Your task to perform on an android device: turn on translation in the chrome app Image 0: 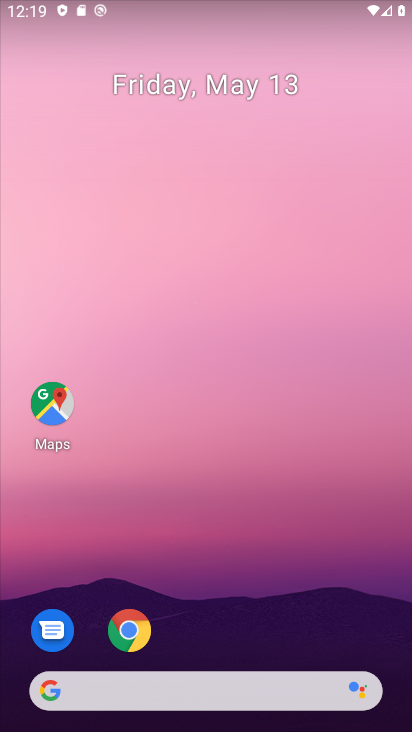
Step 0: drag from (258, 715) to (351, 238)
Your task to perform on an android device: turn on translation in the chrome app Image 1: 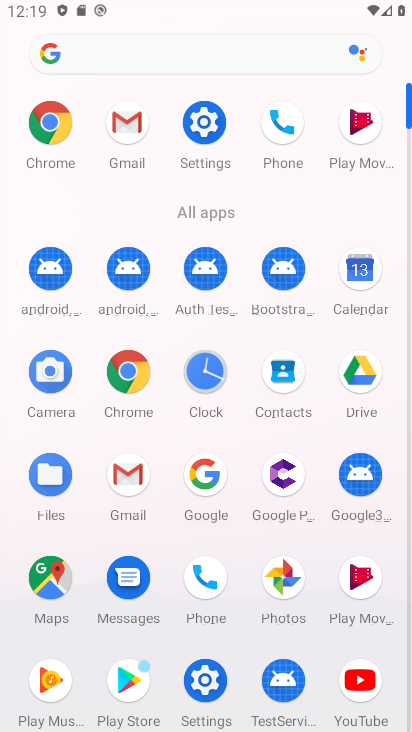
Step 1: click (125, 353)
Your task to perform on an android device: turn on translation in the chrome app Image 2: 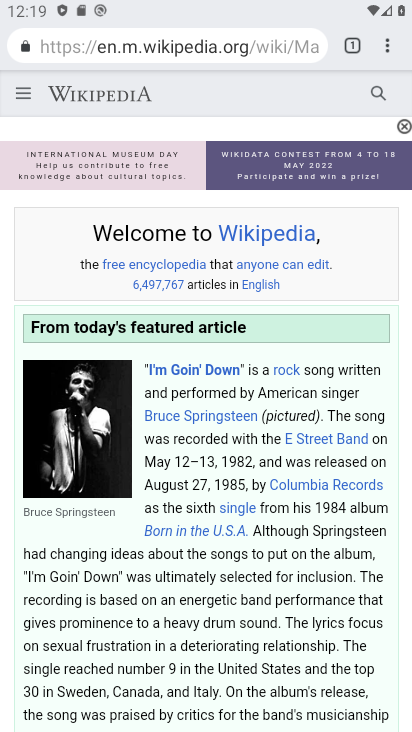
Step 2: click (387, 55)
Your task to perform on an android device: turn on translation in the chrome app Image 3: 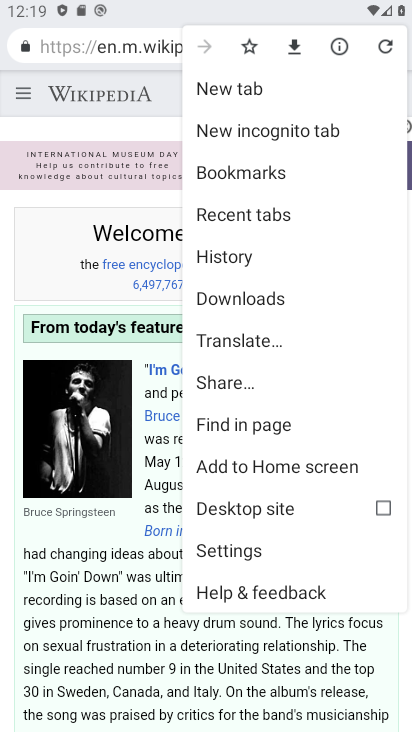
Step 3: click (217, 547)
Your task to perform on an android device: turn on translation in the chrome app Image 4: 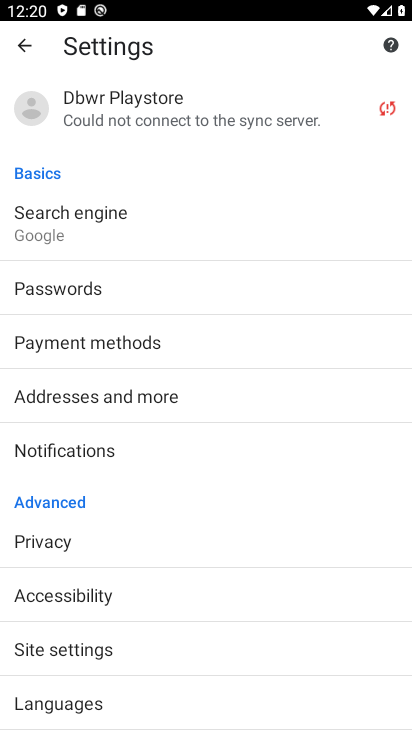
Step 4: click (53, 696)
Your task to perform on an android device: turn on translation in the chrome app Image 5: 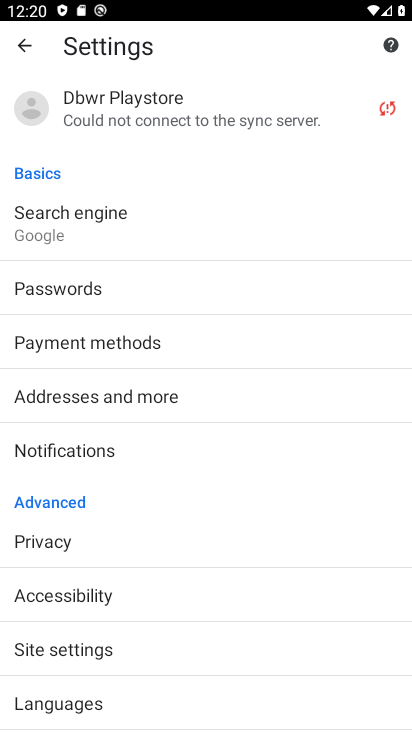
Step 5: click (68, 699)
Your task to perform on an android device: turn on translation in the chrome app Image 6: 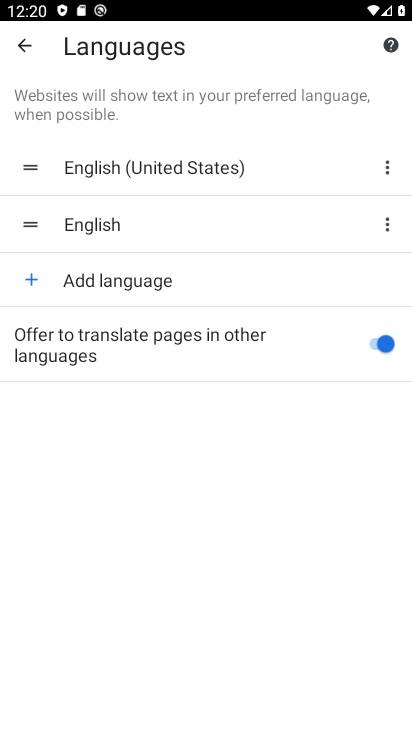
Step 6: click (206, 338)
Your task to perform on an android device: turn on translation in the chrome app Image 7: 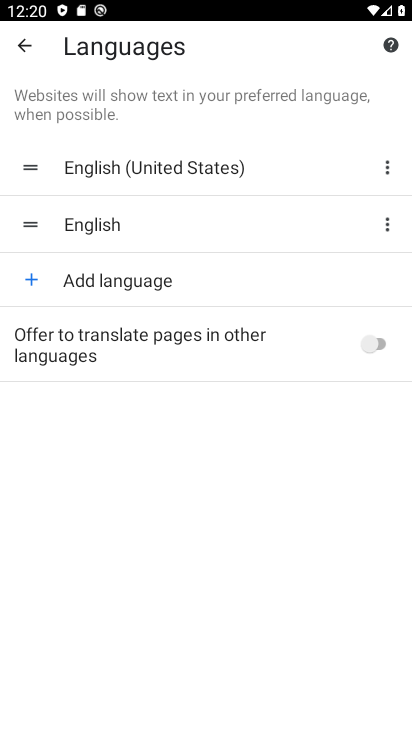
Step 7: click (206, 338)
Your task to perform on an android device: turn on translation in the chrome app Image 8: 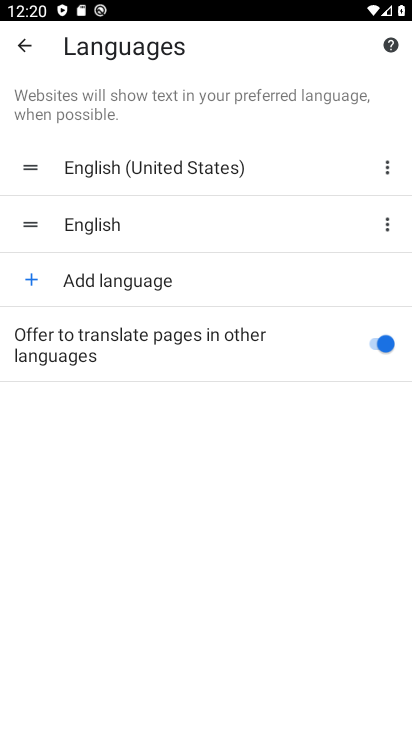
Step 8: task complete